Your task to perform on an android device: Show me popular games on the Play Store Image 0: 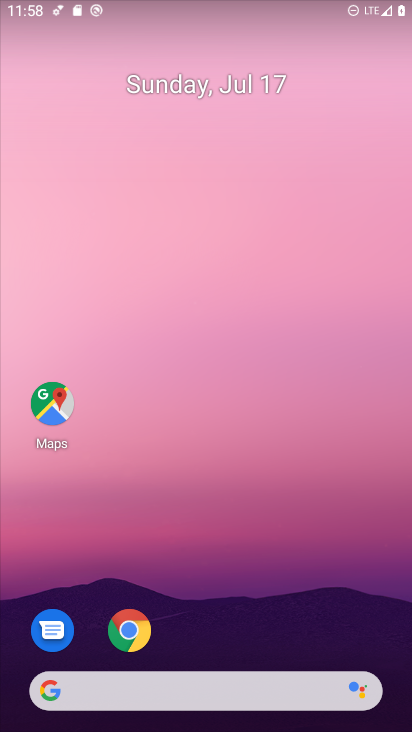
Step 0: drag from (234, 576) to (222, 37)
Your task to perform on an android device: Show me popular games on the Play Store Image 1: 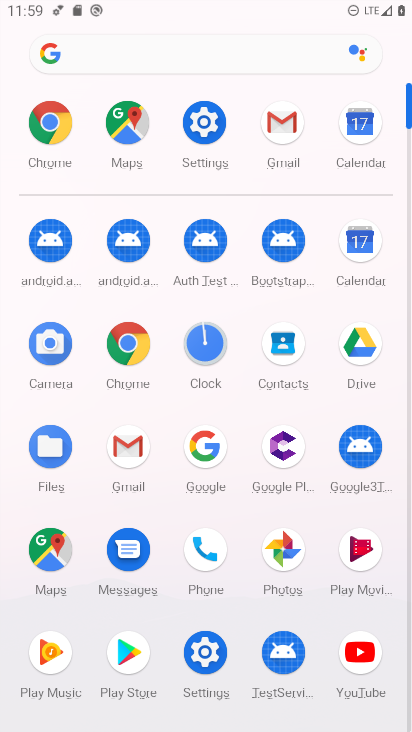
Step 1: click (129, 666)
Your task to perform on an android device: Show me popular games on the Play Store Image 2: 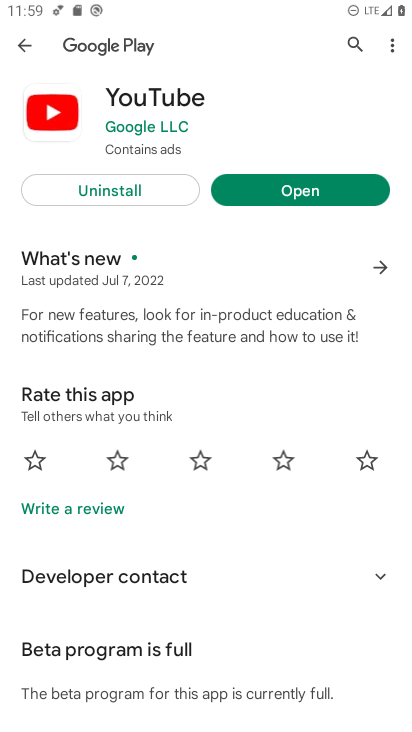
Step 2: click (34, 52)
Your task to perform on an android device: Show me popular games on the Play Store Image 3: 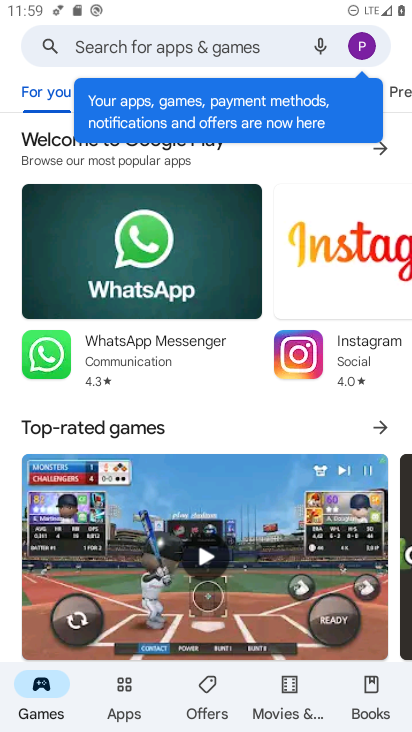
Step 3: task complete